Your task to perform on an android device: turn on airplane mode Image 0: 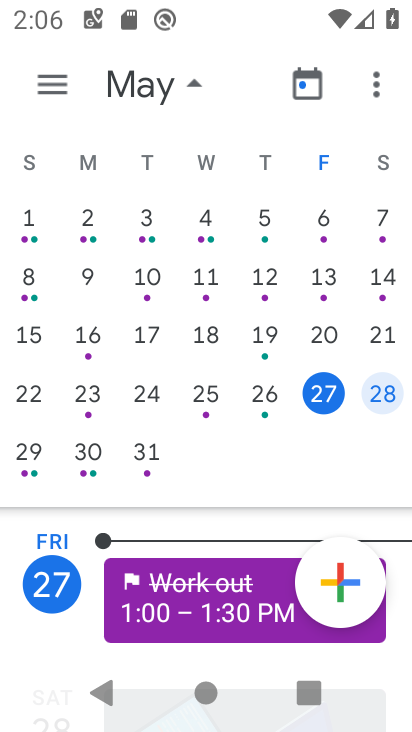
Step 0: press home button
Your task to perform on an android device: turn on airplane mode Image 1: 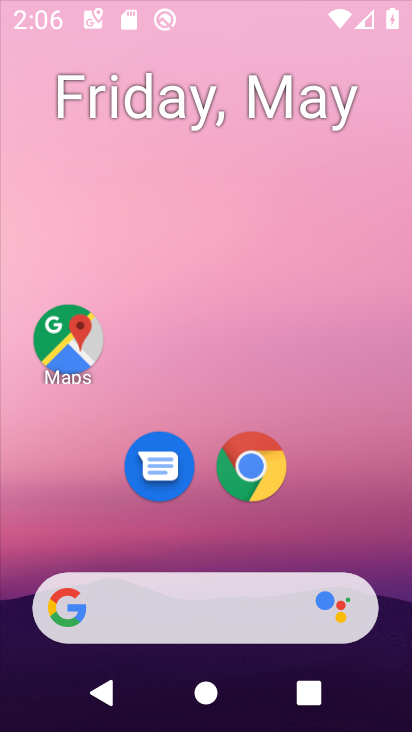
Step 1: drag from (334, 435) to (410, 12)
Your task to perform on an android device: turn on airplane mode Image 2: 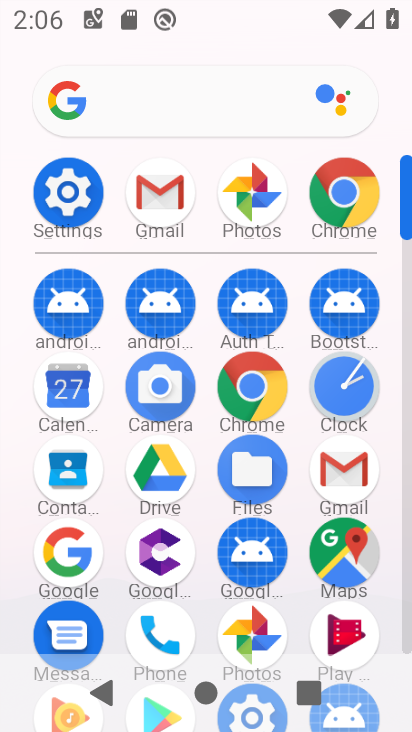
Step 2: click (77, 200)
Your task to perform on an android device: turn on airplane mode Image 3: 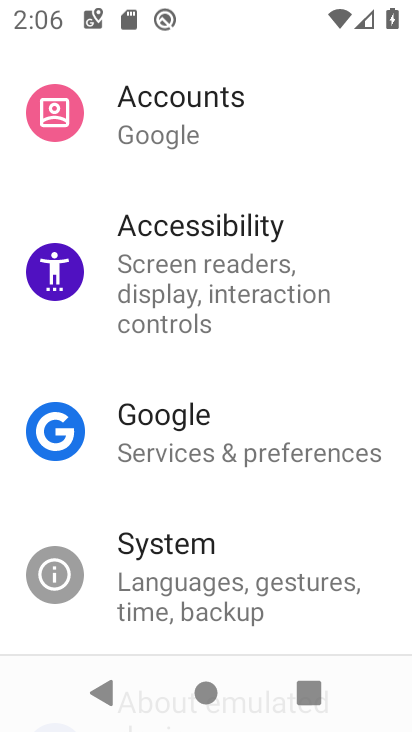
Step 3: drag from (203, 275) to (200, 703)
Your task to perform on an android device: turn on airplane mode Image 4: 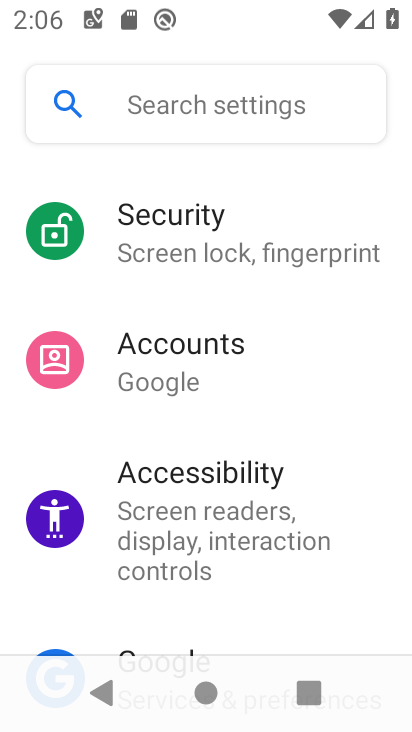
Step 4: drag from (249, 345) to (234, 693)
Your task to perform on an android device: turn on airplane mode Image 5: 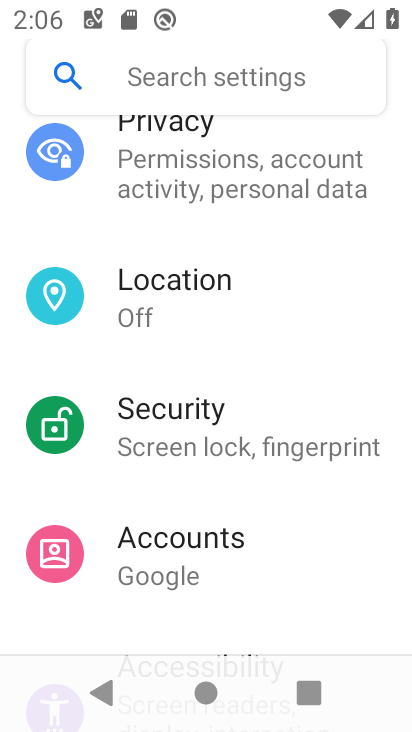
Step 5: drag from (318, 207) to (310, 681)
Your task to perform on an android device: turn on airplane mode Image 6: 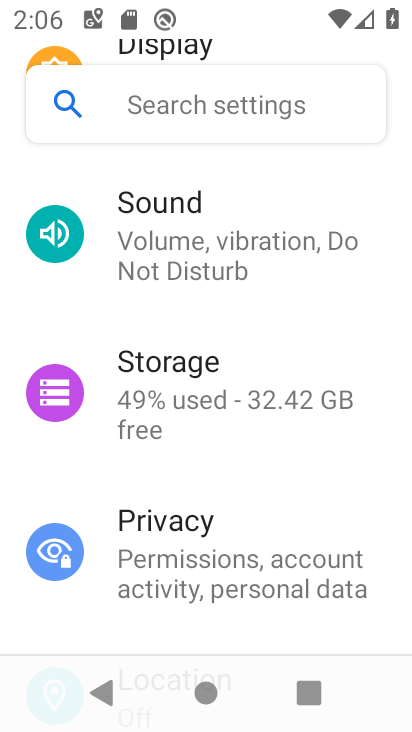
Step 6: drag from (333, 207) to (343, 707)
Your task to perform on an android device: turn on airplane mode Image 7: 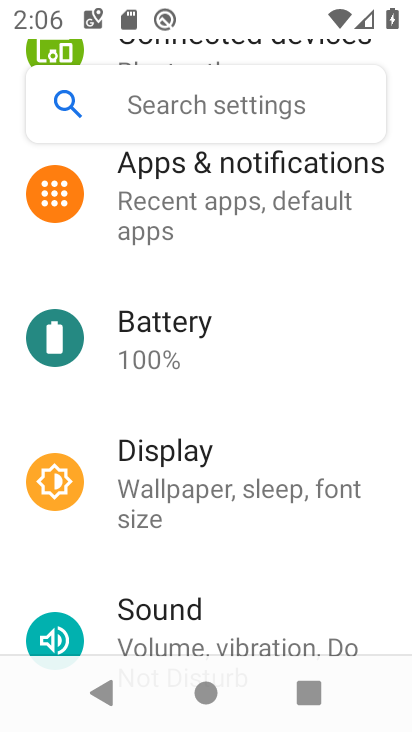
Step 7: drag from (334, 215) to (306, 698)
Your task to perform on an android device: turn on airplane mode Image 8: 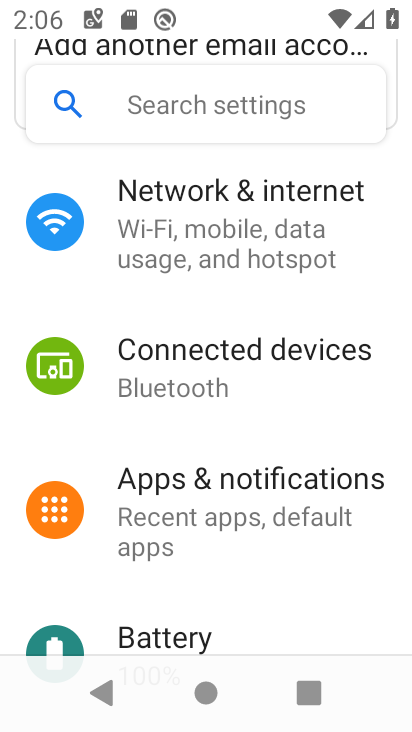
Step 8: drag from (294, 223) to (276, 691)
Your task to perform on an android device: turn on airplane mode Image 9: 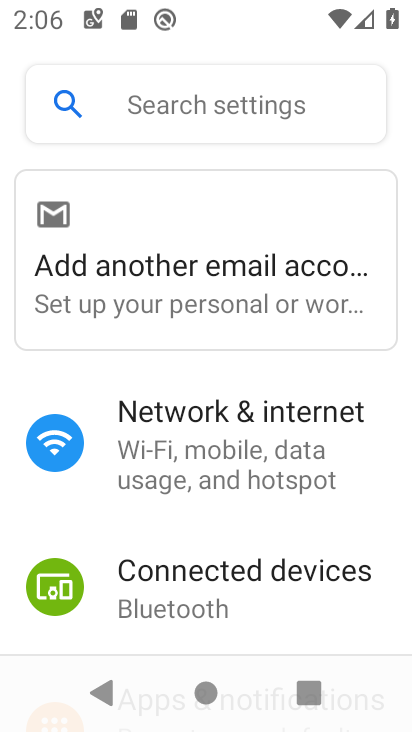
Step 9: click (232, 431)
Your task to perform on an android device: turn on airplane mode Image 10: 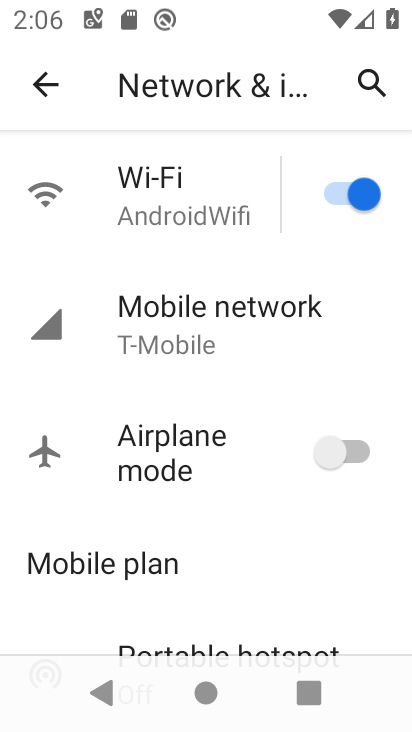
Step 10: click (341, 448)
Your task to perform on an android device: turn on airplane mode Image 11: 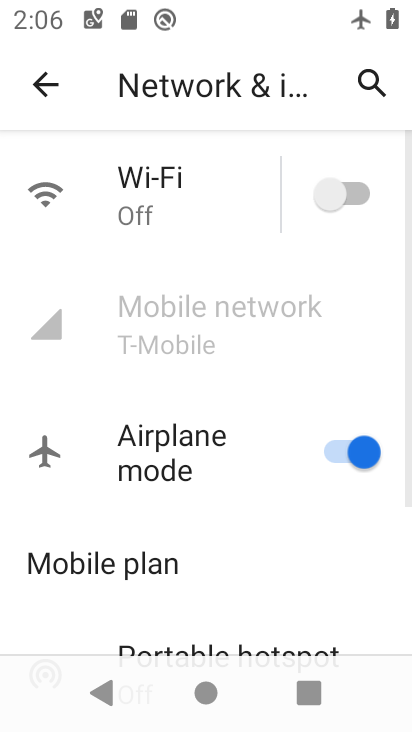
Step 11: task complete